Your task to perform on an android device: toggle location history Image 0: 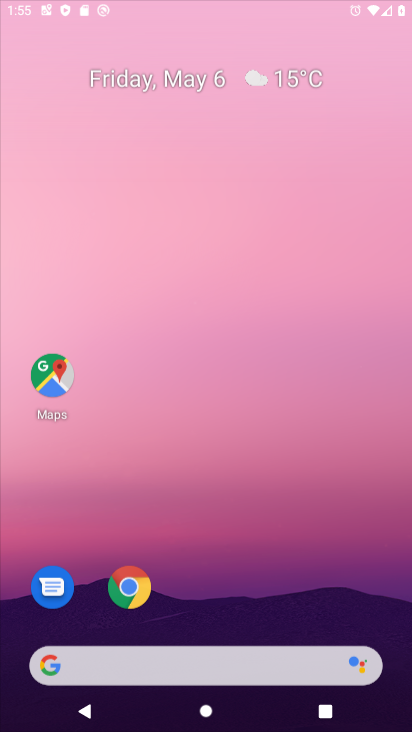
Step 0: click (266, 106)
Your task to perform on an android device: toggle location history Image 1: 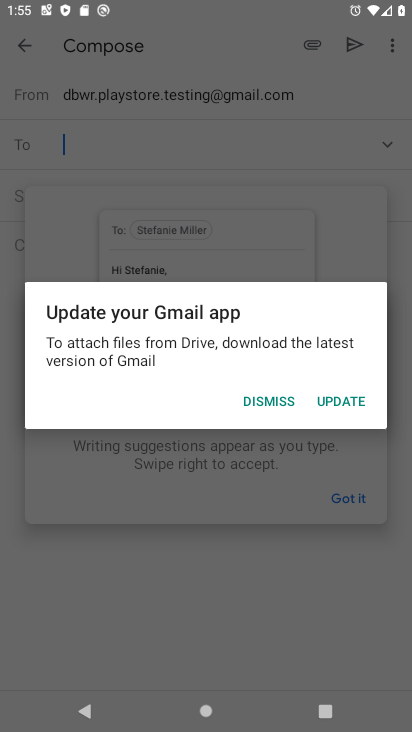
Step 1: press home button
Your task to perform on an android device: toggle location history Image 2: 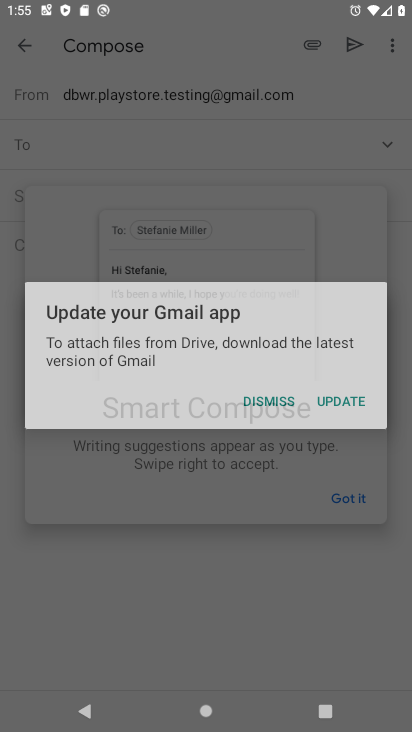
Step 2: press home button
Your task to perform on an android device: toggle location history Image 3: 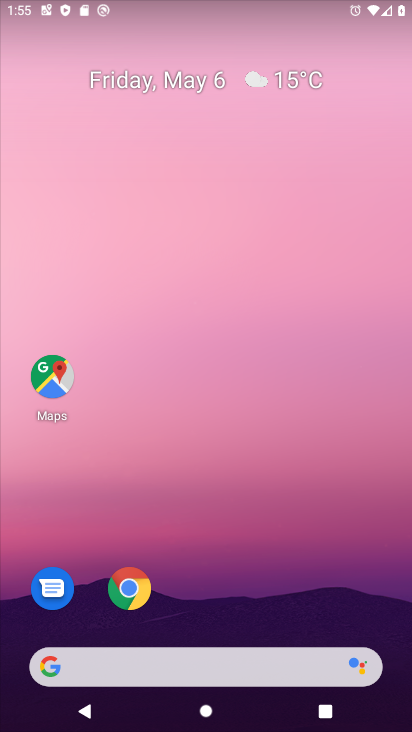
Step 3: drag from (172, 617) to (267, 119)
Your task to perform on an android device: toggle location history Image 4: 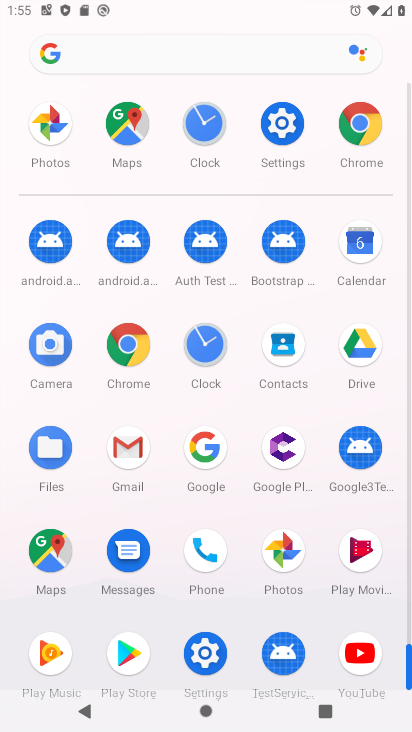
Step 4: click (204, 638)
Your task to perform on an android device: toggle location history Image 5: 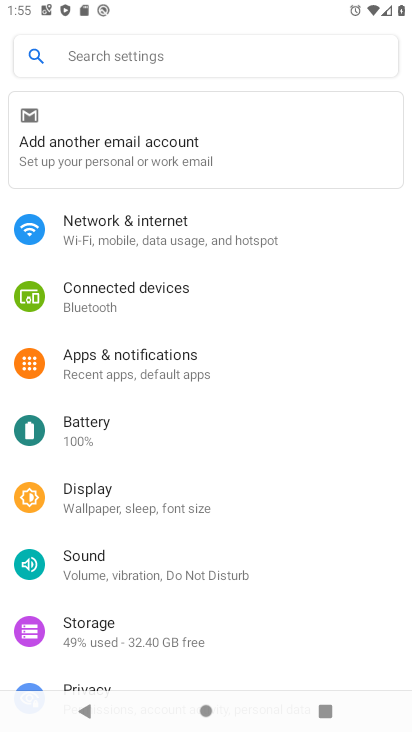
Step 5: drag from (162, 620) to (201, 205)
Your task to perform on an android device: toggle location history Image 6: 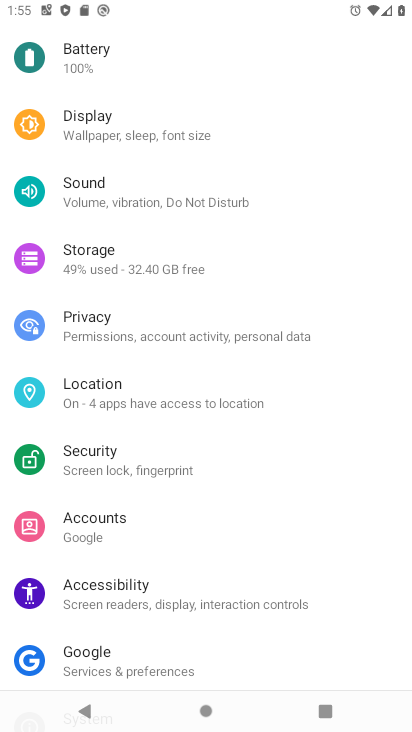
Step 6: click (163, 381)
Your task to perform on an android device: toggle location history Image 7: 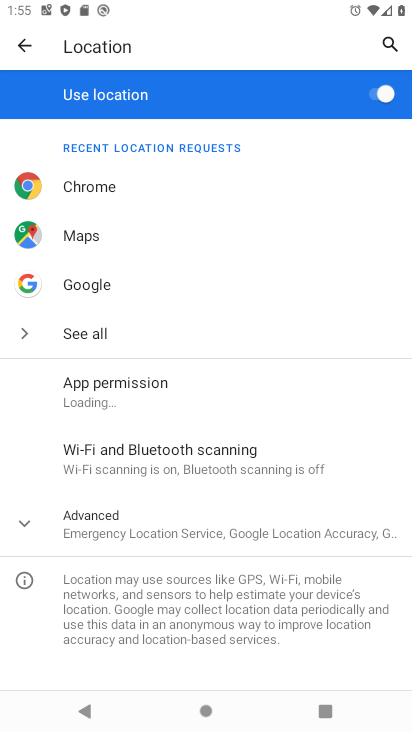
Step 7: click (168, 521)
Your task to perform on an android device: toggle location history Image 8: 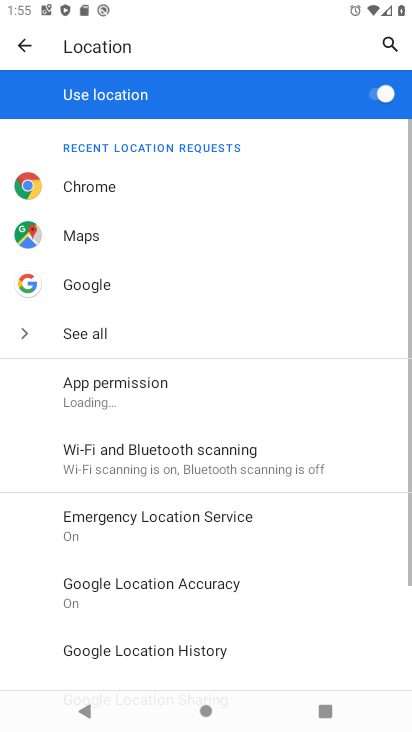
Step 8: drag from (233, 627) to (295, 313)
Your task to perform on an android device: toggle location history Image 9: 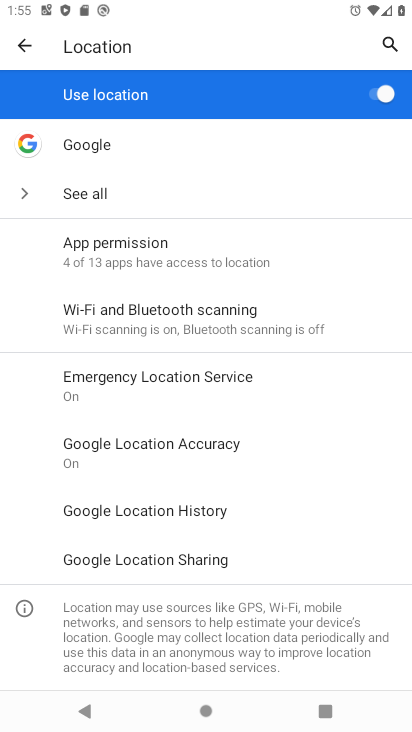
Step 9: click (223, 519)
Your task to perform on an android device: toggle location history Image 10: 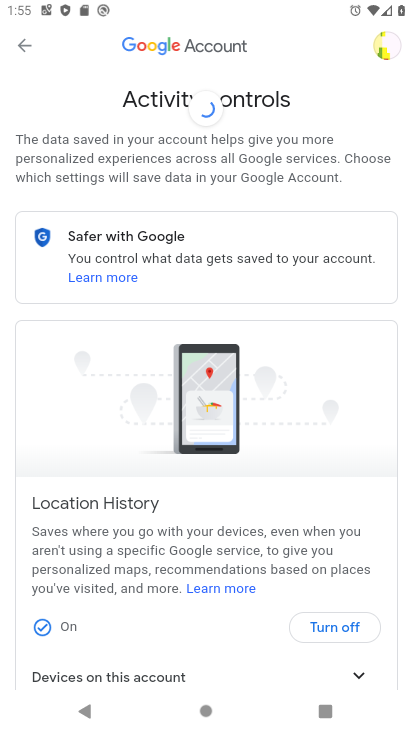
Step 10: click (349, 630)
Your task to perform on an android device: toggle location history Image 11: 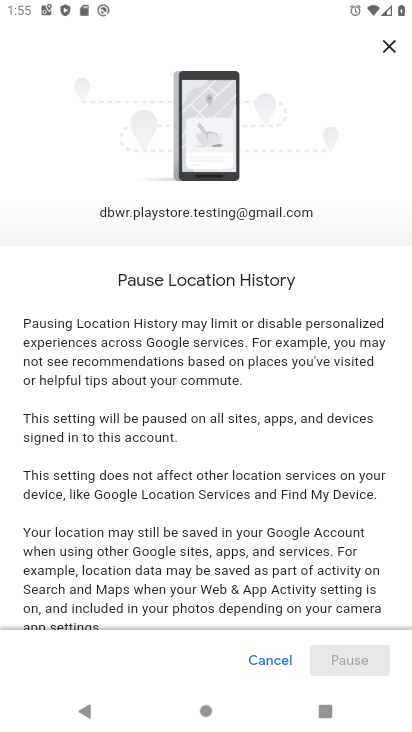
Step 11: drag from (278, 563) to (334, 151)
Your task to perform on an android device: toggle location history Image 12: 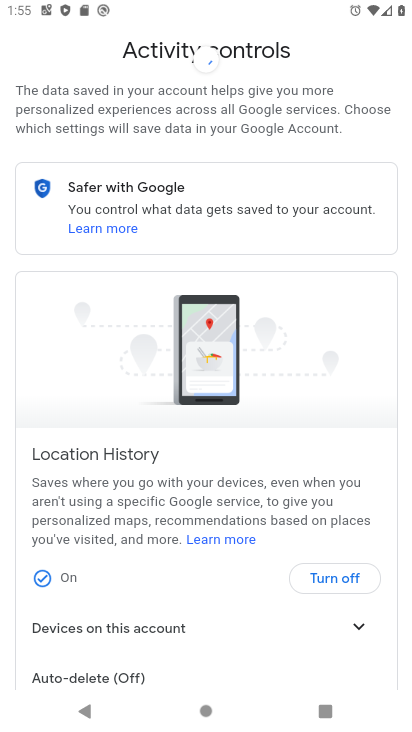
Step 12: drag from (240, 579) to (253, 272)
Your task to perform on an android device: toggle location history Image 13: 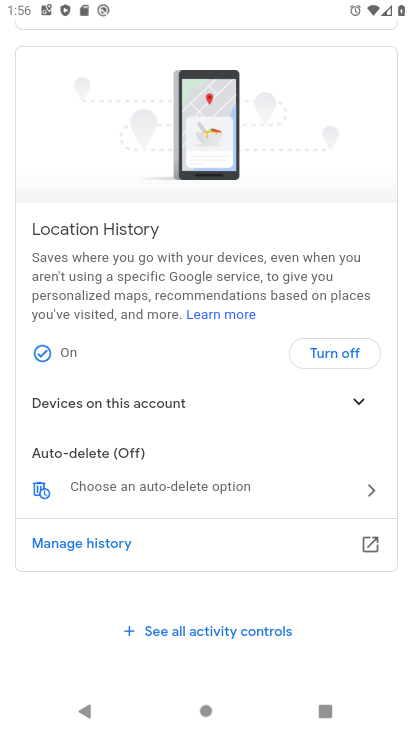
Step 13: click (345, 353)
Your task to perform on an android device: toggle location history Image 14: 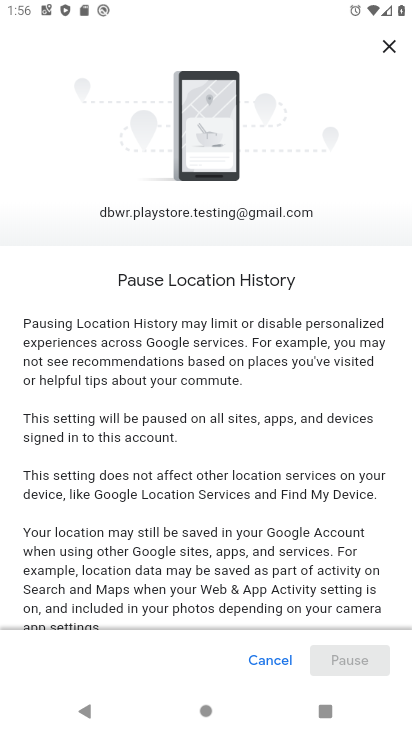
Step 14: drag from (266, 598) to (302, 170)
Your task to perform on an android device: toggle location history Image 15: 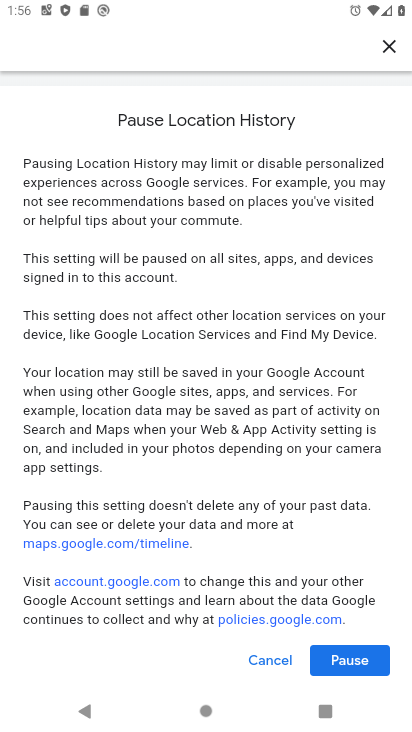
Step 15: drag from (217, 590) to (301, 139)
Your task to perform on an android device: toggle location history Image 16: 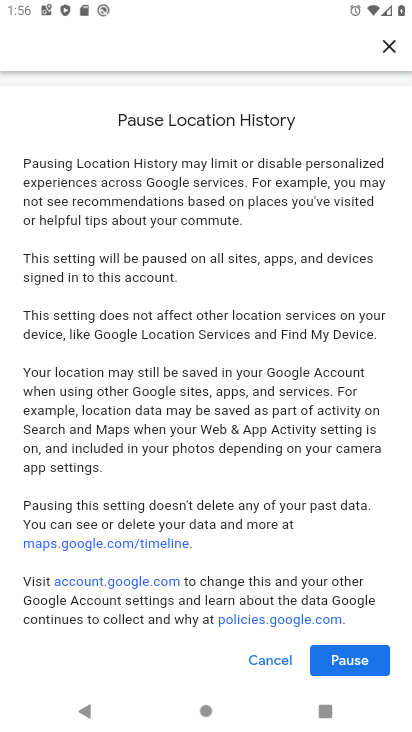
Step 16: click (323, 649)
Your task to perform on an android device: toggle location history Image 17: 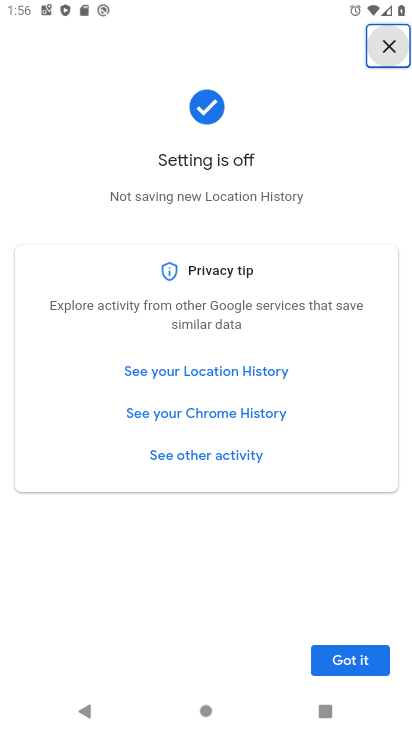
Step 17: click (343, 660)
Your task to perform on an android device: toggle location history Image 18: 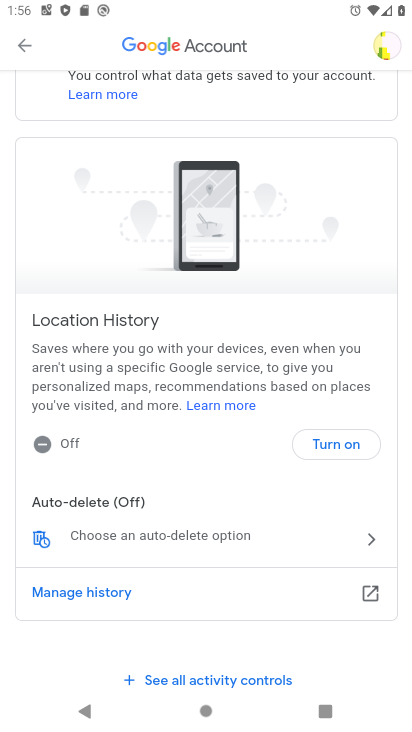
Step 18: task complete